Your task to perform on an android device: toggle improve location accuracy Image 0: 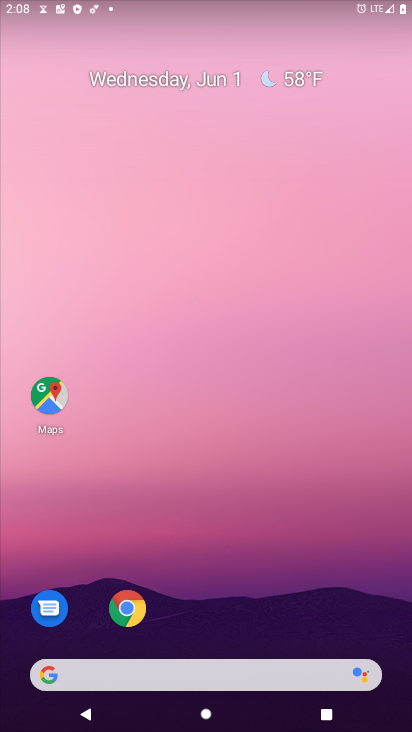
Step 0: drag from (265, 569) to (254, 183)
Your task to perform on an android device: toggle improve location accuracy Image 1: 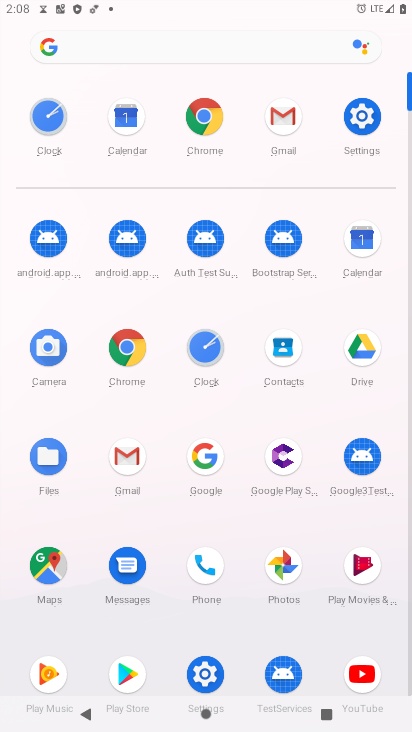
Step 1: click (360, 109)
Your task to perform on an android device: toggle improve location accuracy Image 2: 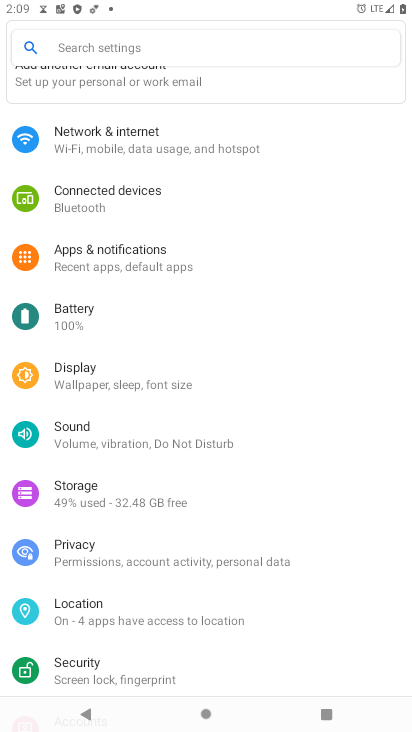
Step 2: click (63, 611)
Your task to perform on an android device: toggle improve location accuracy Image 3: 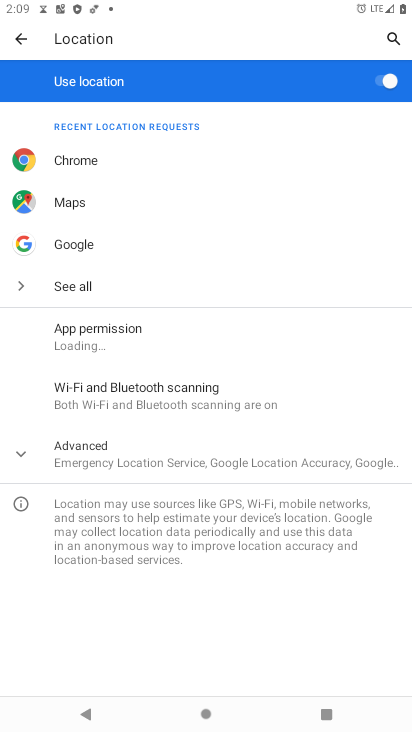
Step 3: click (97, 452)
Your task to perform on an android device: toggle improve location accuracy Image 4: 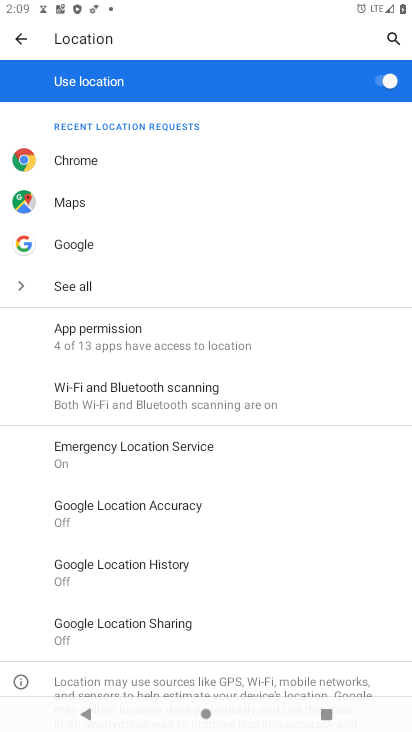
Step 4: click (131, 511)
Your task to perform on an android device: toggle improve location accuracy Image 5: 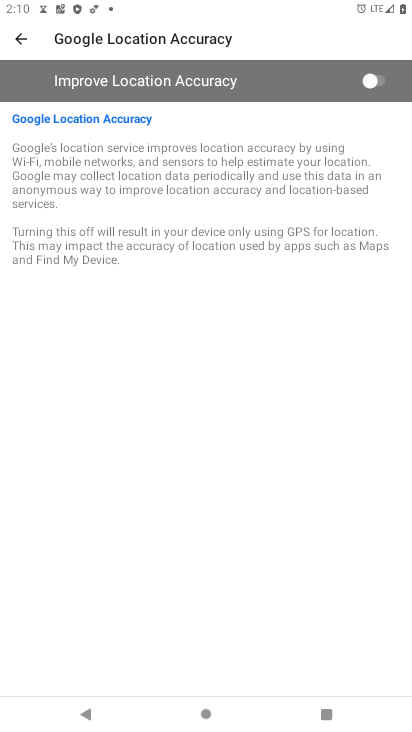
Step 5: click (358, 83)
Your task to perform on an android device: toggle improve location accuracy Image 6: 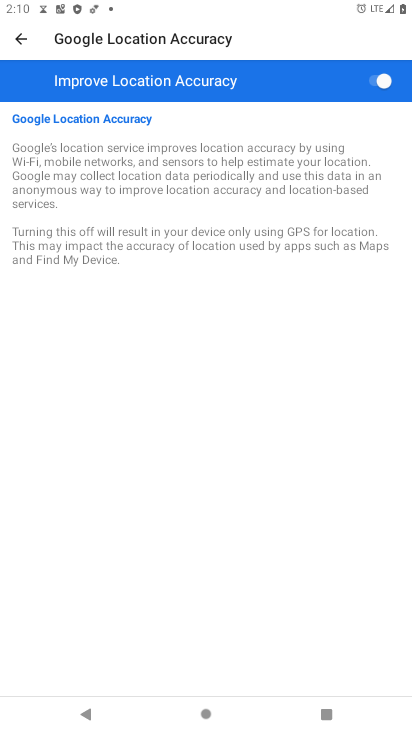
Step 6: task complete